Your task to perform on an android device: turn on wifi Image 0: 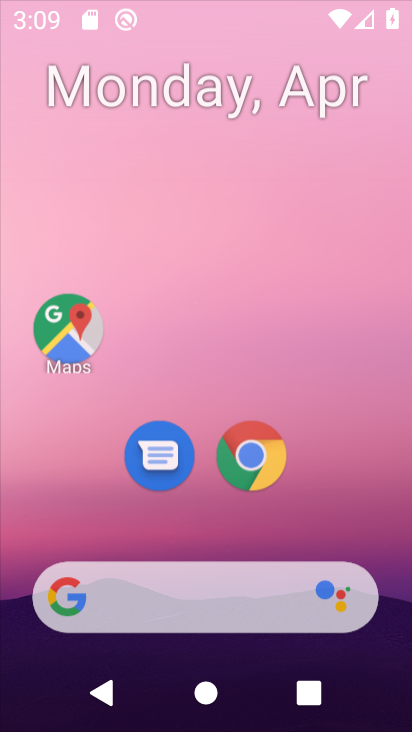
Step 0: drag from (345, 438) to (345, 86)
Your task to perform on an android device: turn on wifi Image 1: 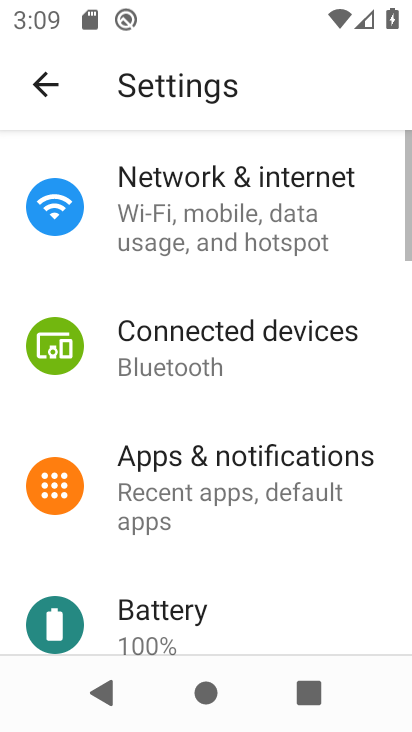
Step 1: click (312, 591)
Your task to perform on an android device: turn on wifi Image 2: 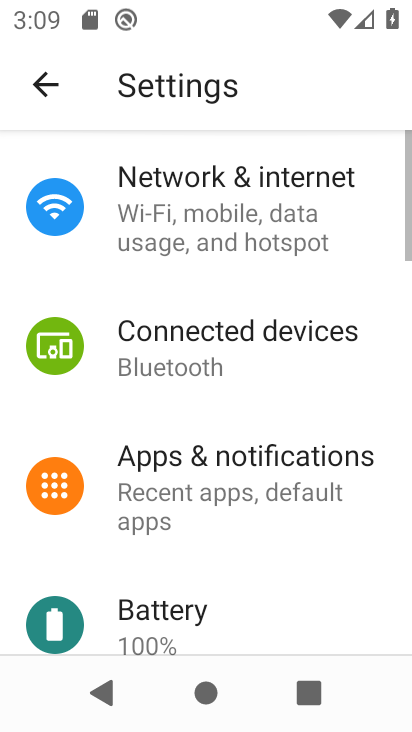
Step 2: click (291, 233)
Your task to perform on an android device: turn on wifi Image 3: 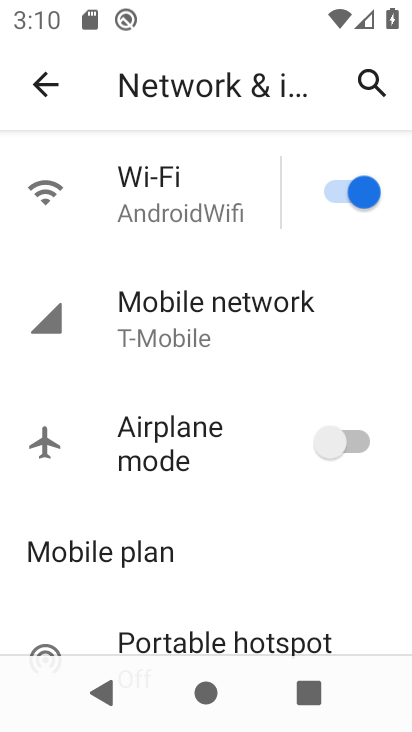
Step 3: task complete